Your task to perform on an android device: change the upload size in google photos Image 0: 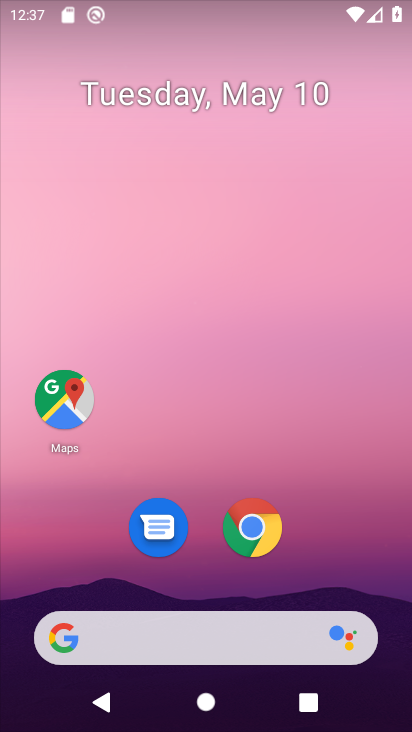
Step 0: drag from (265, 589) to (321, 232)
Your task to perform on an android device: change the upload size in google photos Image 1: 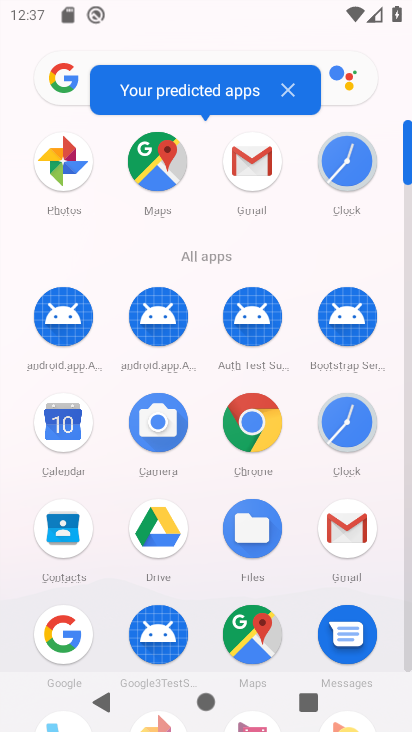
Step 1: drag from (292, 614) to (324, 271)
Your task to perform on an android device: change the upload size in google photos Image 2: 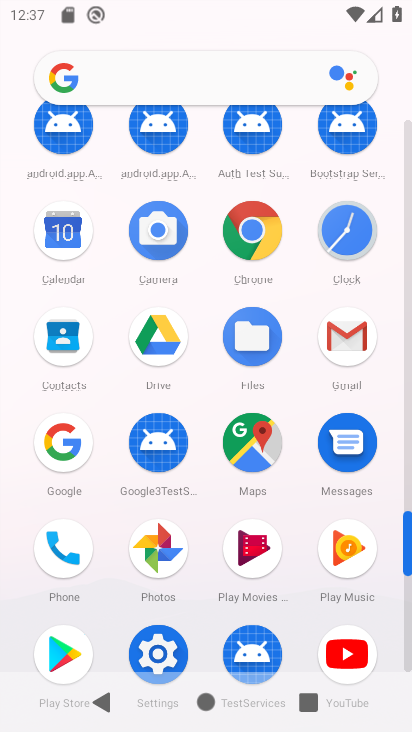
Step 2: click (155, 566)
Your task to perform on an android device: change the upload size in google photos Image 3: 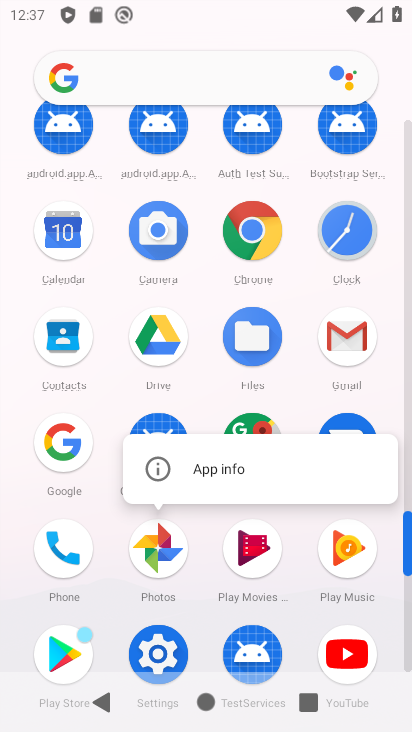
Step 3: click (173, 560)
Your task to perform on an android device: change the upload size in google photos Image 4: 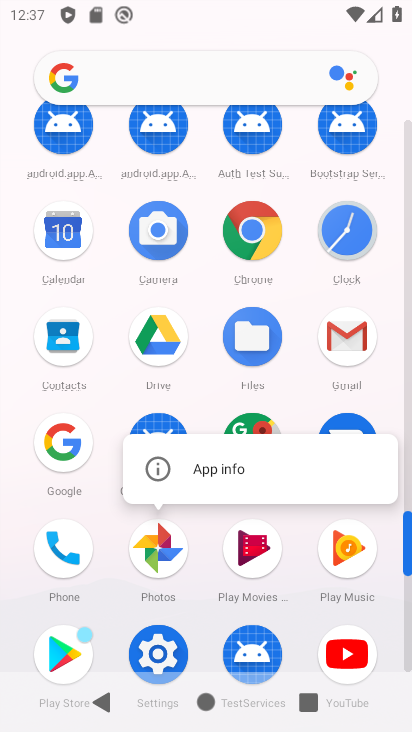
Step 4: click (162, 561)
Your task to perform on an android device: change the upload size in google photos Image 5: 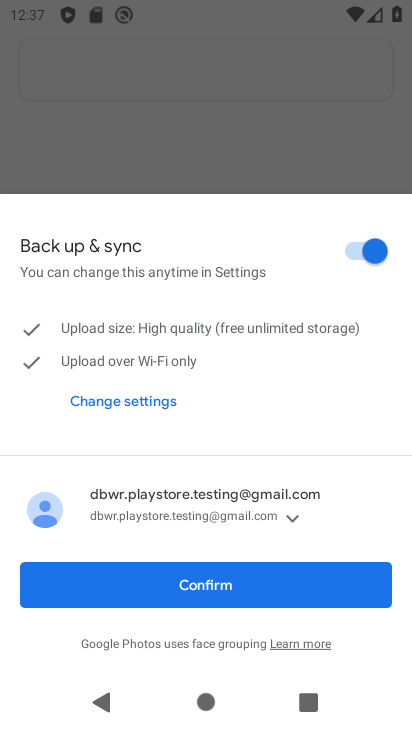
Step 5: click (171, 590)
Your task to perform on an android device: change the upload size in google photos Image 6: 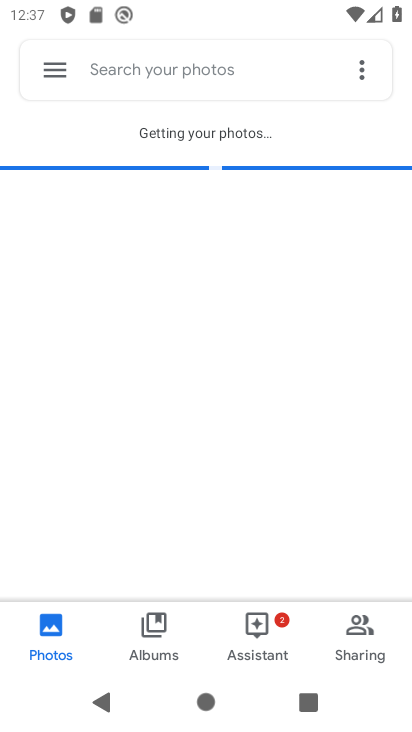
Step 6: click (63, 72)
Your task to perform on an android device: change the upload size in google photos Image 7: 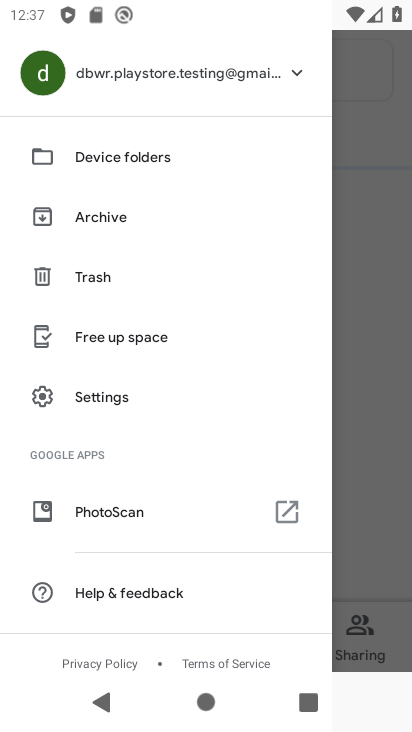
Step 7: click (108, 398)
Your task to perform on an android device: change the upload size in google photos Image 8: 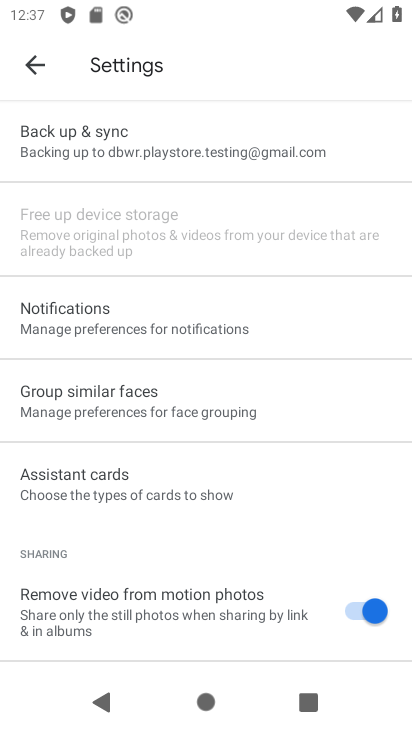
Step 8: click (180, 160)
Your task to perform on an android device: change the upload size in google photos Image 9: 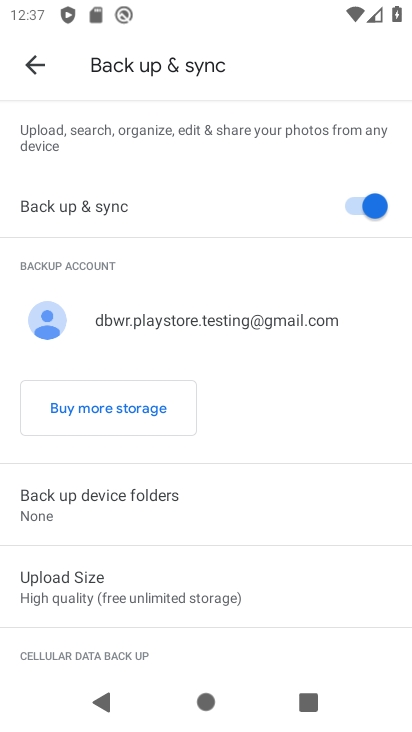
Step 9: click (106, 607)
Your task to perform on an android device: change the upload size in google photos Image 10: 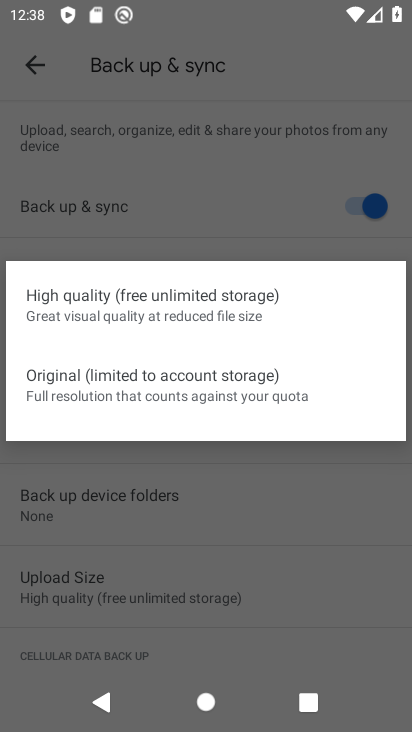
Step 10: click (171, 531)
Your task to perform on an android device: change the upload size in google photos Image 11: 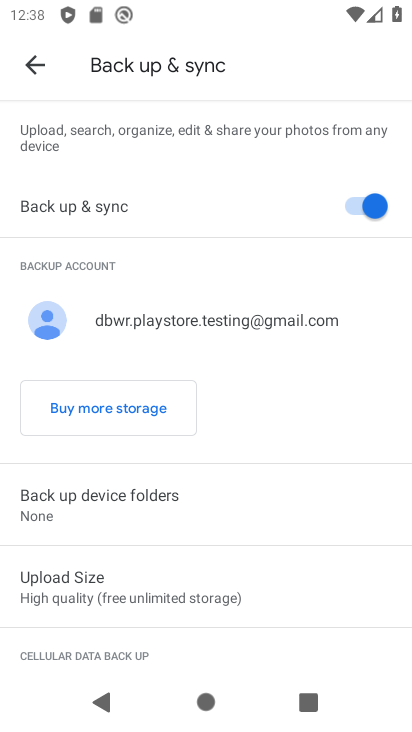
Step 11: click (134, 614)
Your task to perform on an android device: change the upload size in google photos Image 12: 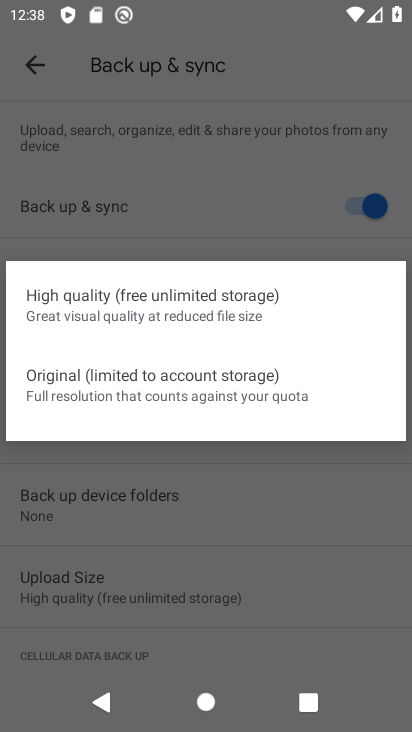
Step 12: click (179, 388)
Your task to perform on an android device: change the upload size in google photos Image 13: 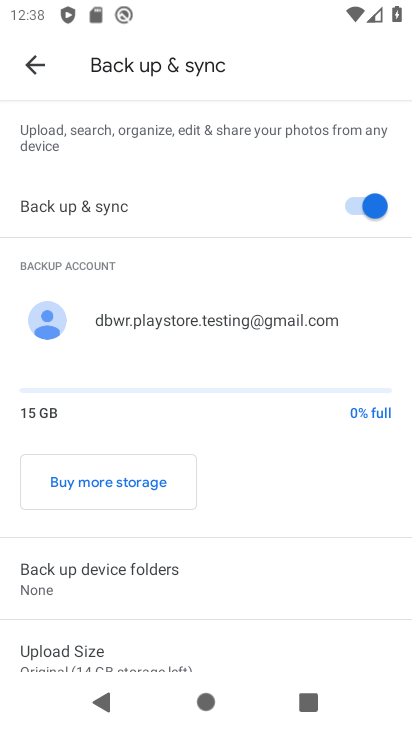
Step 13: task complete